Your task to perform on an android device: open sync settings in chrome Image 0: 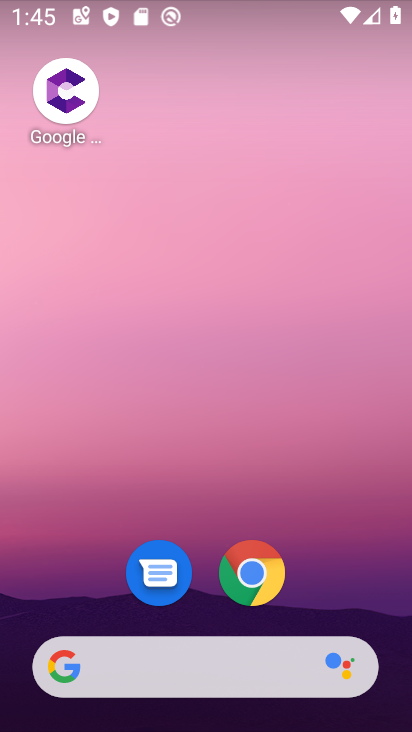
Step 0: click (243, 549)
Your task to perform on an android device: open sync settings in chrome Image 1: 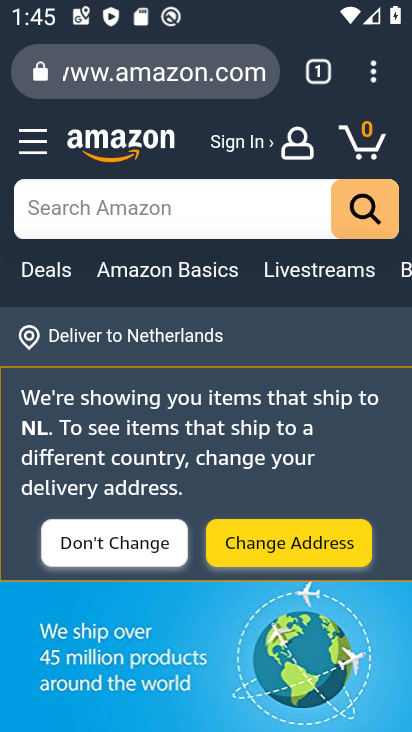
Step 1: drag from (374, 68) to (123, 559)
Your task to perform on an android device: open sync settings in chrome Image 2: 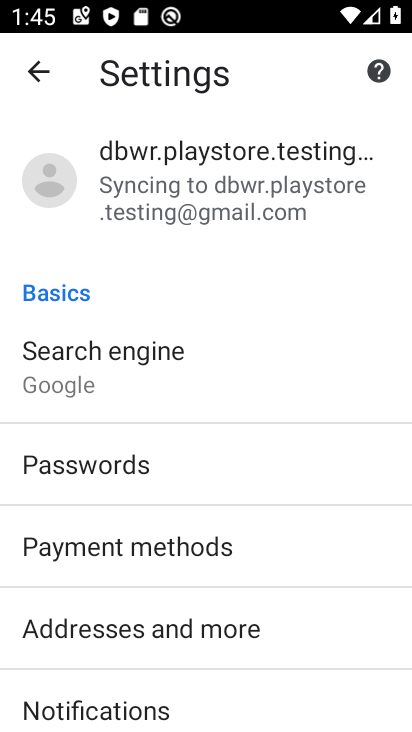
Step 2: click (146, 213)
Your task to perform on an android device: open sync settings in chrome Image 3: 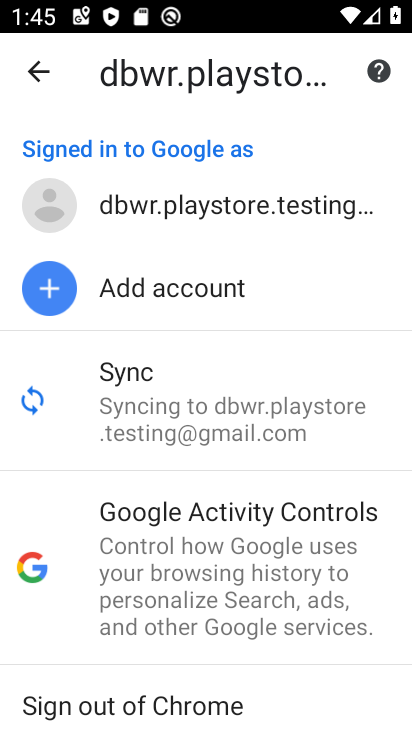
Step 3: click (129, 372)
Your task to perform on an android device: open sync settings in chrome Image 4: 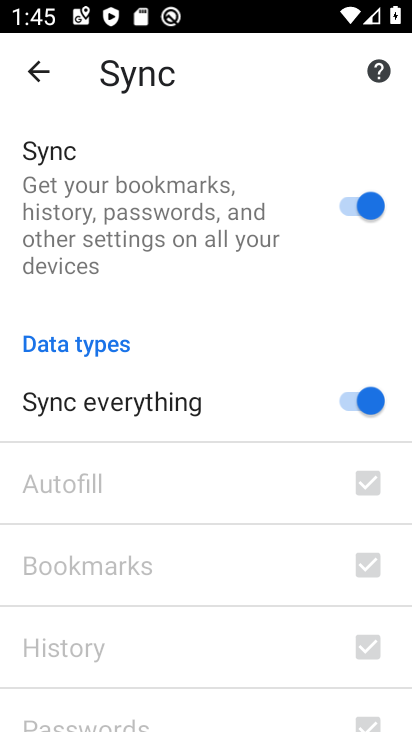
Step 4: task complete